Your task to perform on an android device: turn off notifications settings in the gmail app Image 0: 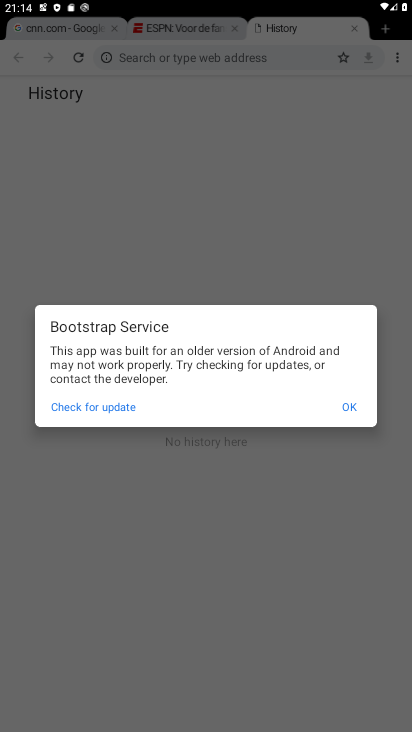
Step 0: press home button
Your task to perform on an android device: turn off notifications settings in the gmail app Image 1: 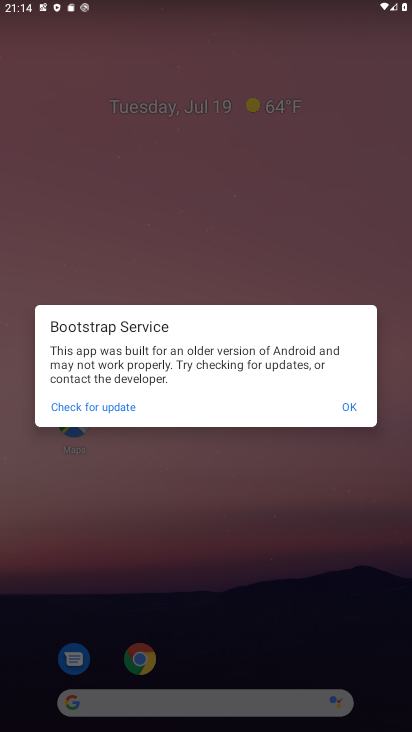
Step 1: click (357, 407)
Your task to perform on an android device: turn off notifications settings in the gmail app Image 2: 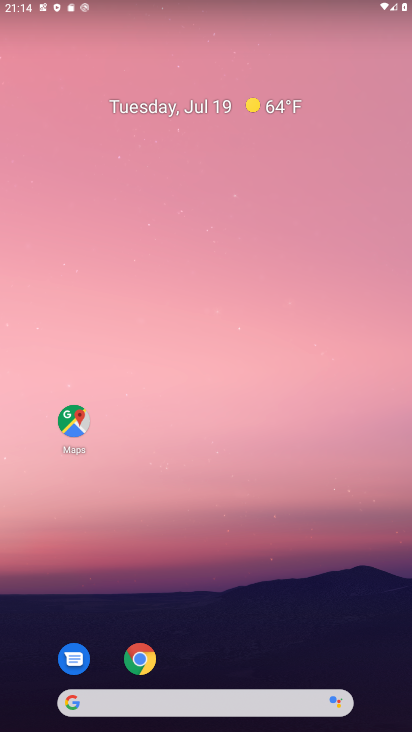
Step 2: drag from (212, 669) to (176, 22)
Your task to perform on an android device: turn off notifications settings in the gmail app Image 3: 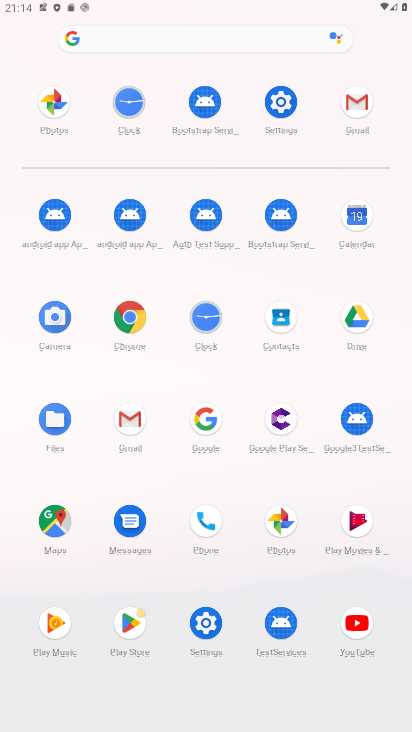
Step 3: click (292, 148)
Your task to perform on an android device: turn off notifications settings in the gmail app Image 4: 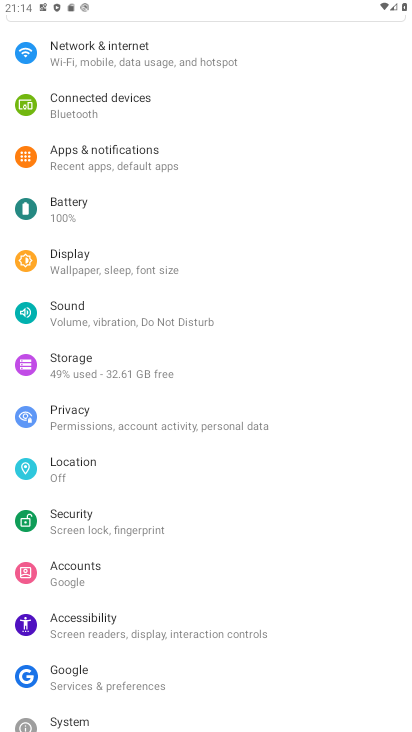
Step 4: click (225, 156)
Your task to perform on an android device: turn off notifications settings in the gmail app Image 5: 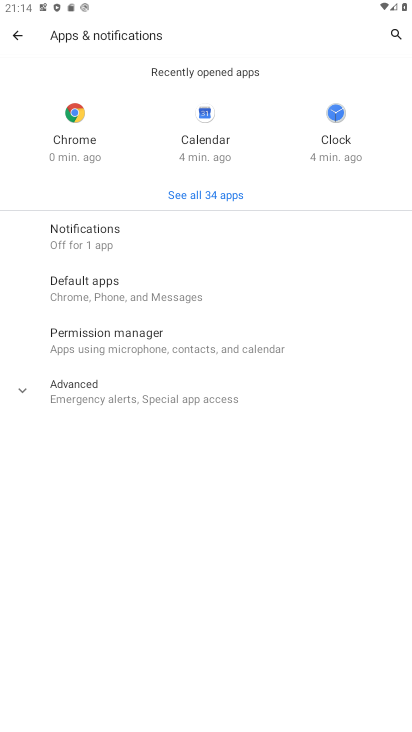
Step 5: click (218, 186)
Your task to perform on an android device: turn off notifications settings in the gmail app Image 6: 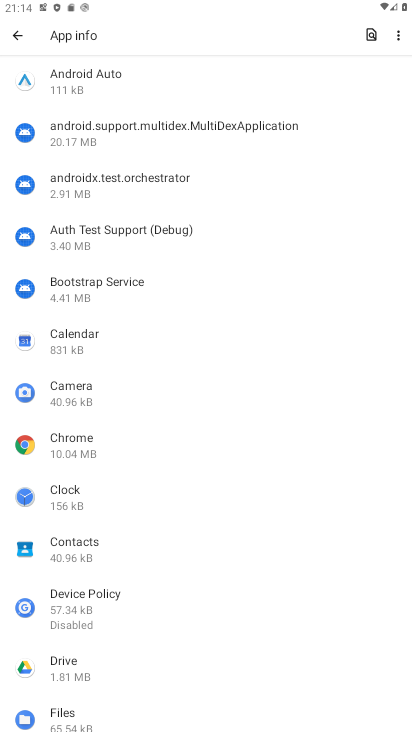
Step 6: drag from (100, 658) to (143, 191)
Your task to perform on an android device: turn off notifications settings in the gmail app Image 7: 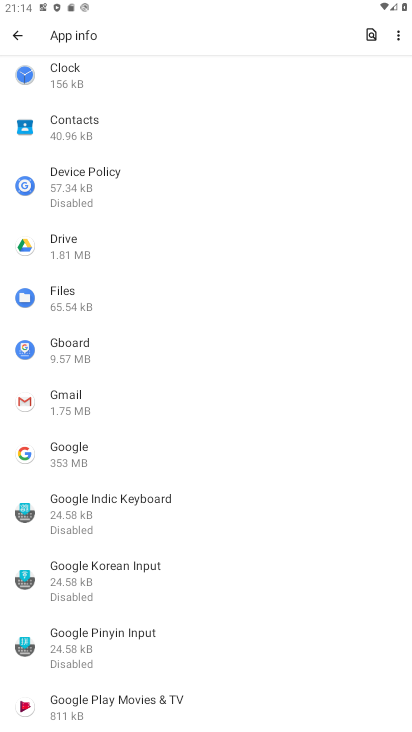
Step 7: click (66, 402)
Your task to perform on an android device: turn off notifications settings in the gmail app Image 8: 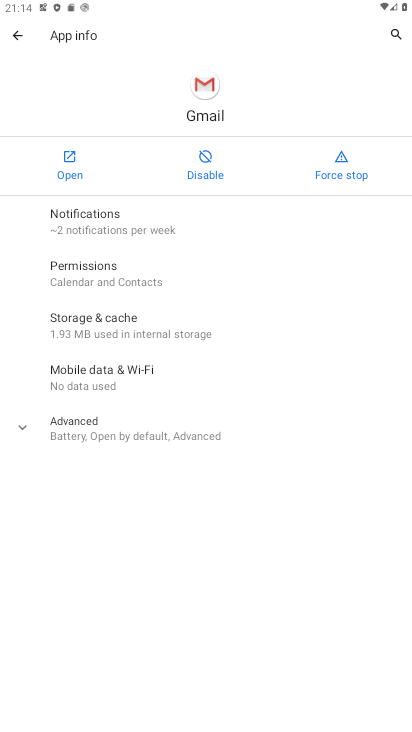
Step 8: click (112, 227)
Your task to perform on an android device: turn off notifications settings in the gmail app Image 9: 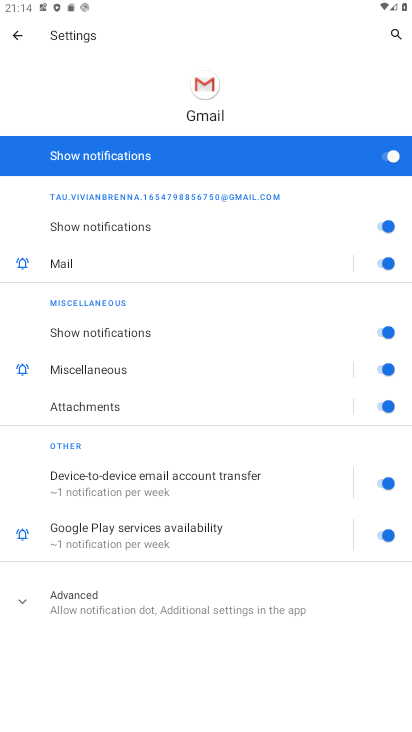
Step 9: click (386, 160)
Your task to perform on an android device: turn off notifications settings in the gmail app Image 10: 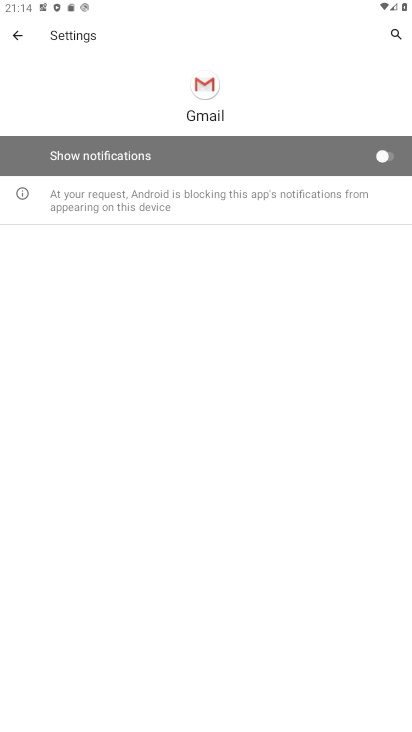
Step 10: task complete